Your task to perform on an android device: Open accessibility settings Image 0: 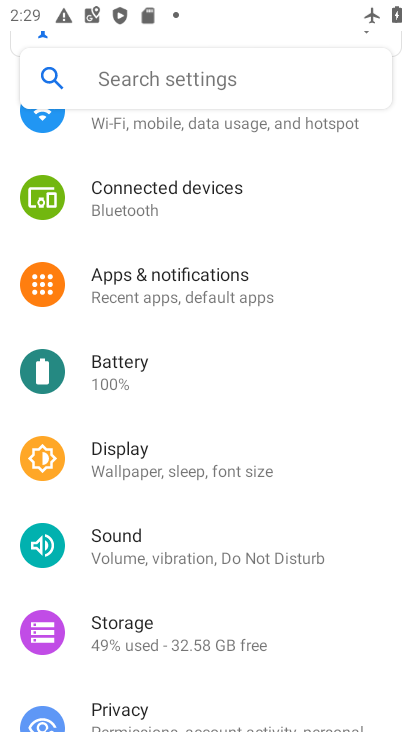
Step 0: drag from (230, 478) to (210, 77)
Your task to perform on an android device: Open accessibility settings Image 1: 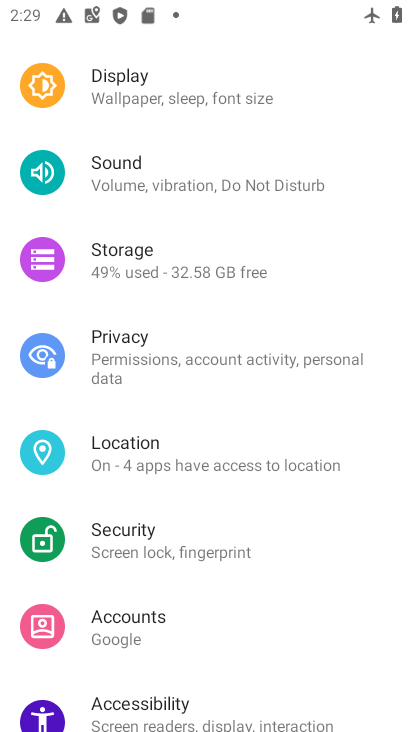
Step 1: drag from (202, 563) to (211, 256)
Your task to perform on an android device: Open accessibility settings Image 2: 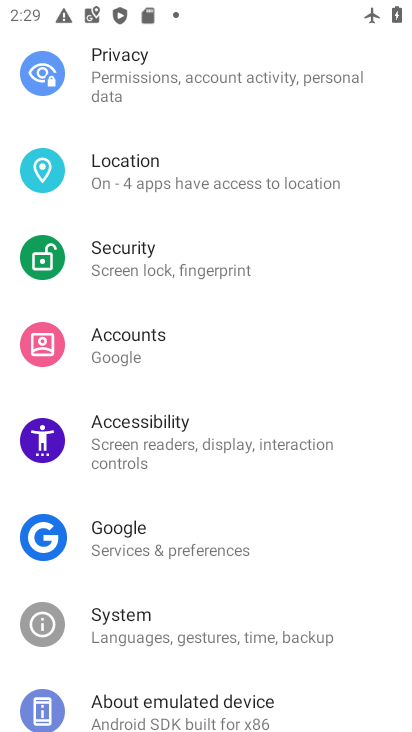
Step 2: click (207, 436)
Your task to perform on an android device: Open accessibility settings Image 3: 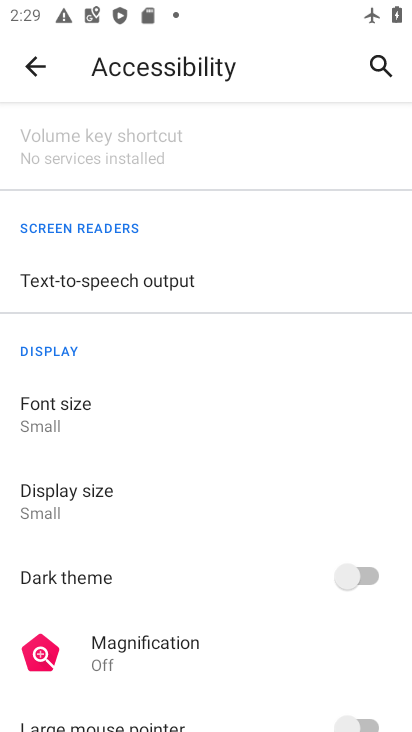
Step 3: task complete